Your task to perform on an android device: install app "Indeed Job Search" Image 0: 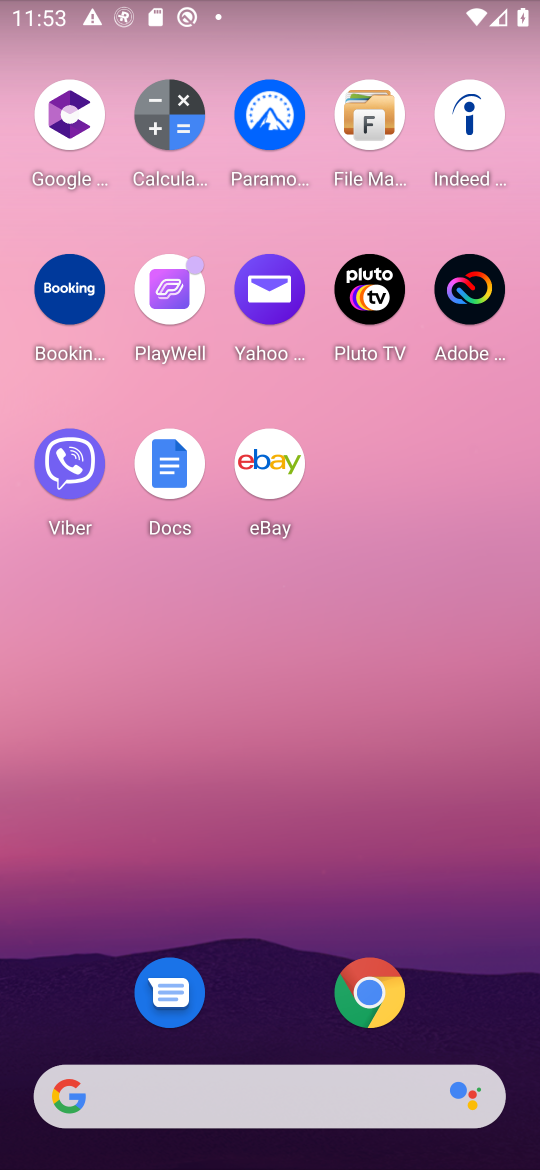
Step 0: press home button
Your task to perform on an android device: install app "Indeed Job Search" Image 1: 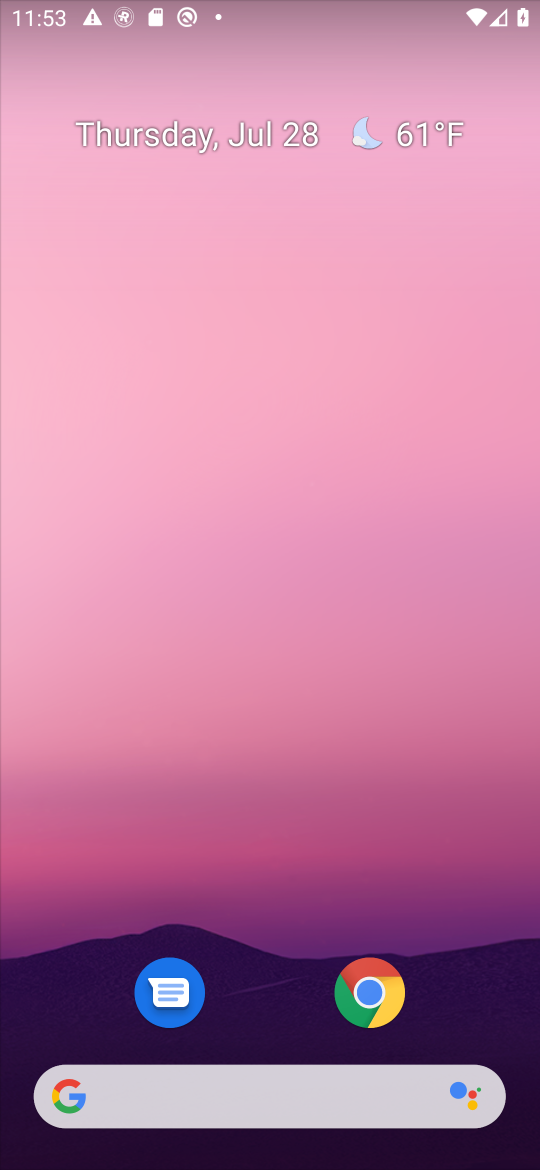
Step 1: drag from (201, 1108) to (309, 67)
Your task to perform on an android device: install app "Indeed Job Search" Image 2: 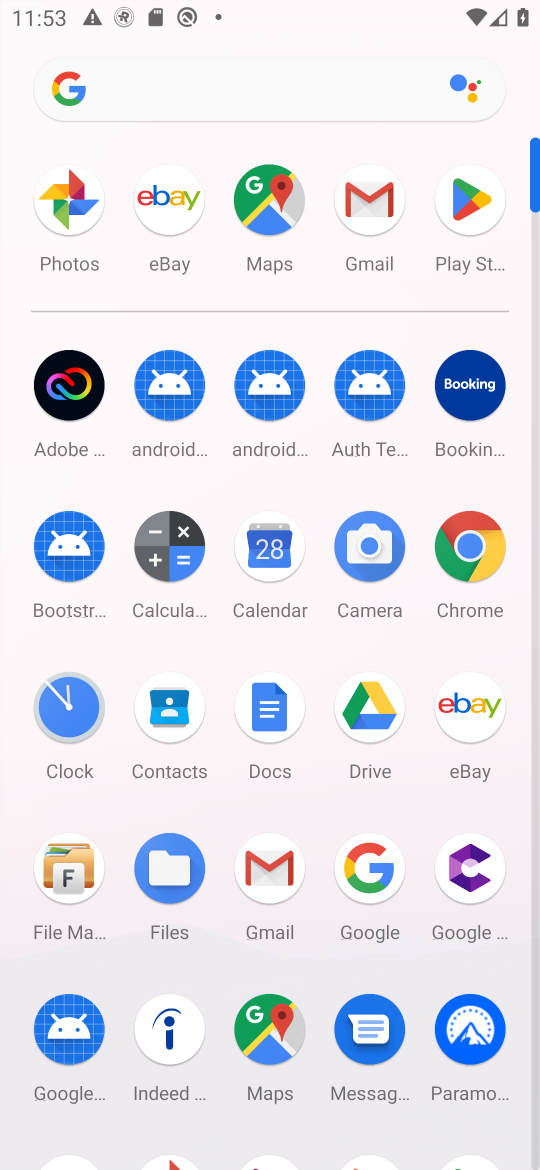
Step 2: click (468, 209)
Your task to perform on an android device: install app "Indeed Job Search" Image 3: 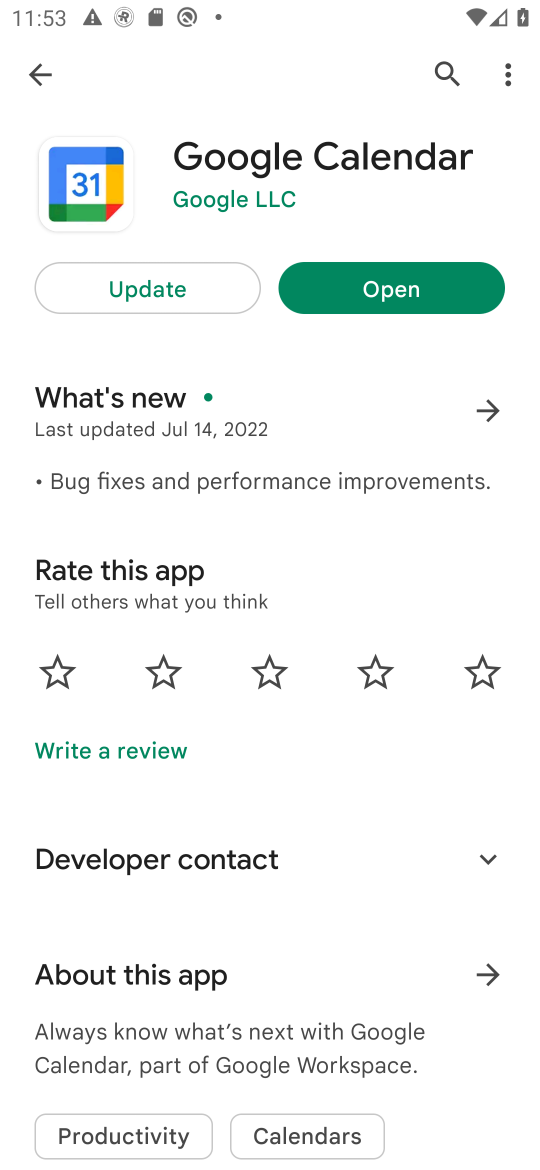
Step 3: click (444, 68)
Your task to perform on an android device: install app "Indeed Job Search" Image 4: 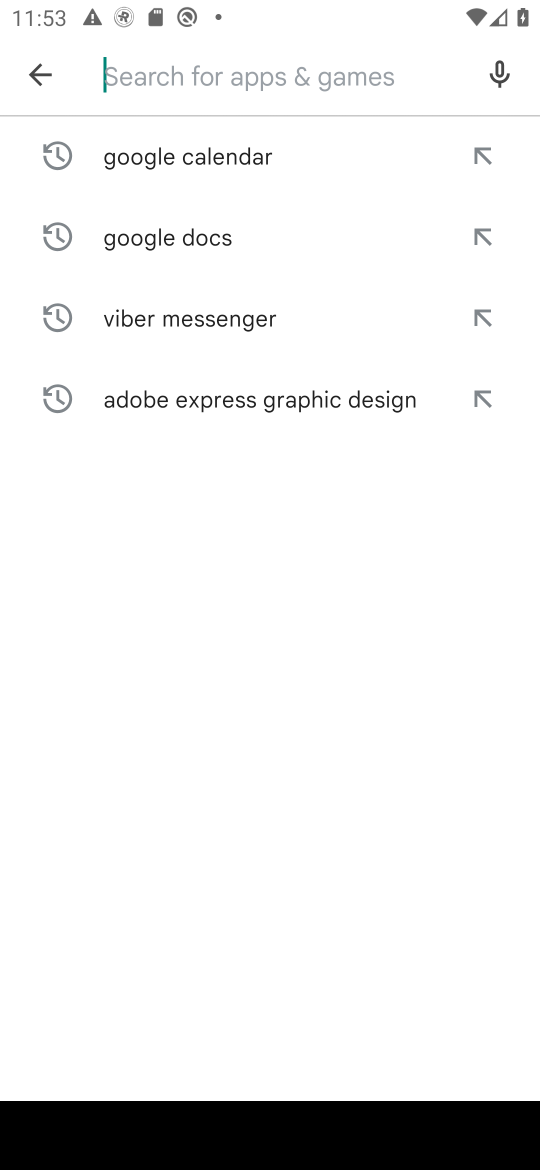
Step 4: type "Indeed Job Search"
Your task to perform on an android device: install app "Indeed Job Search" Image 5: 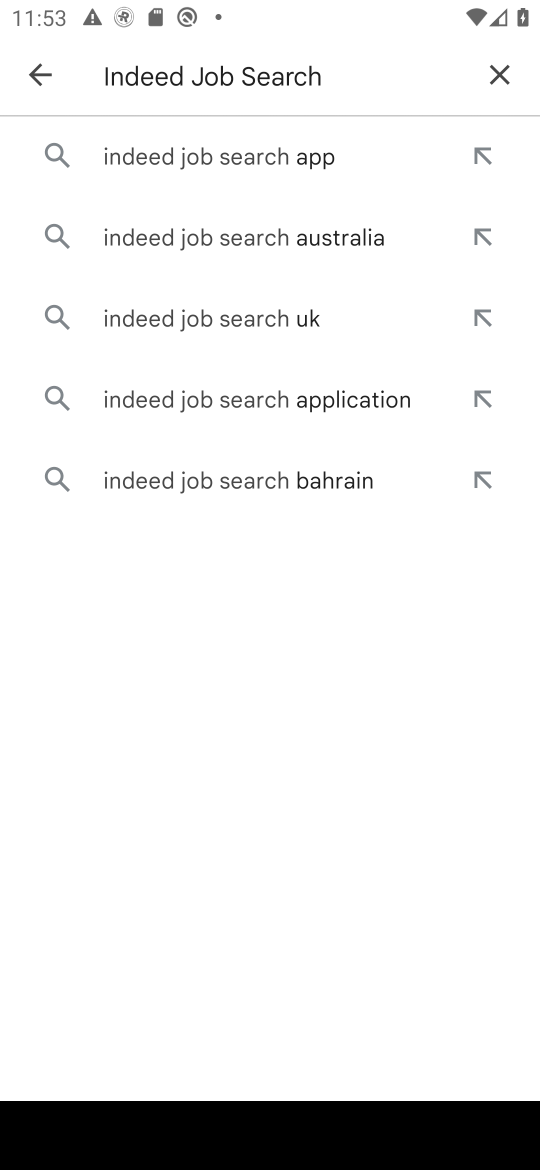
Step 5: click (301, 147)
Your task to perform on an android device: install app "Indeed Job Search" Image 6: 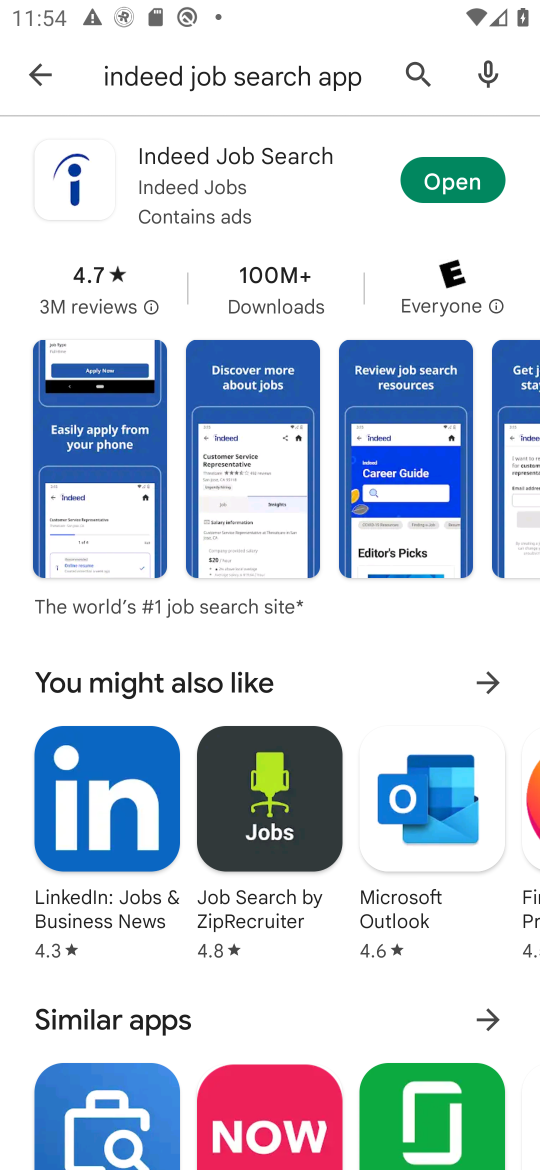
Step 6: task complete